Your task to perform on an android device: clear all cookies in the chrome app Image 0: 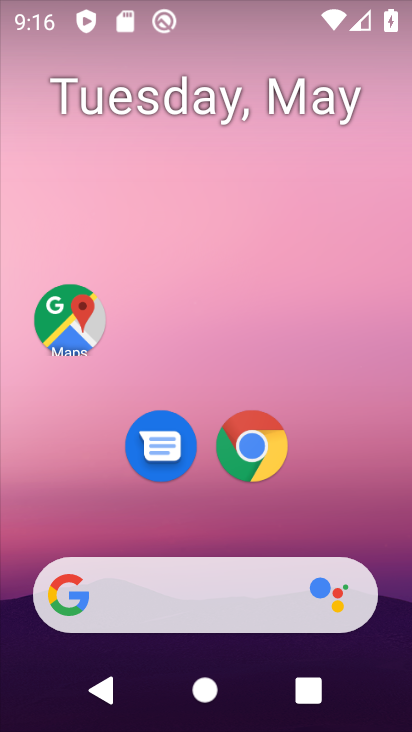
Step 0: click (254, 437)
Your task to perform on an android device: clear all cookies in the chrome app Image 1: 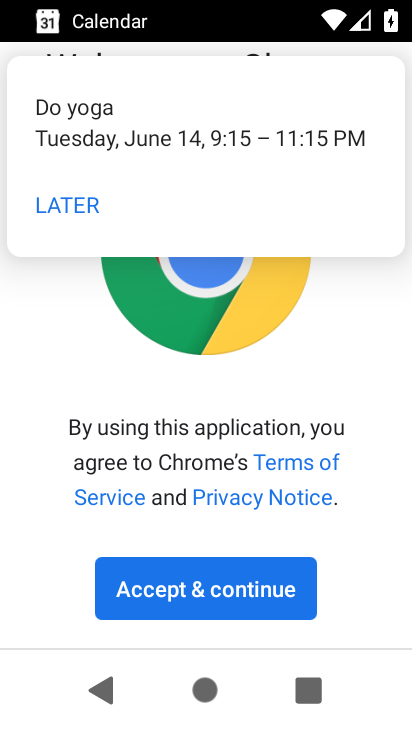
Step 1: click (214, 600)
Your task to perform on an android device: clear all cookies in the chrome app Image 2: 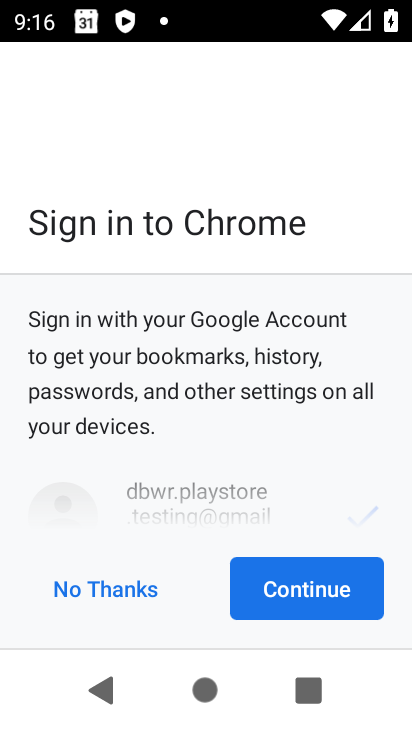
Step 2: click (279, 611)
Your task to perform on an android device: clear all cookies in the chrome app Image 3: 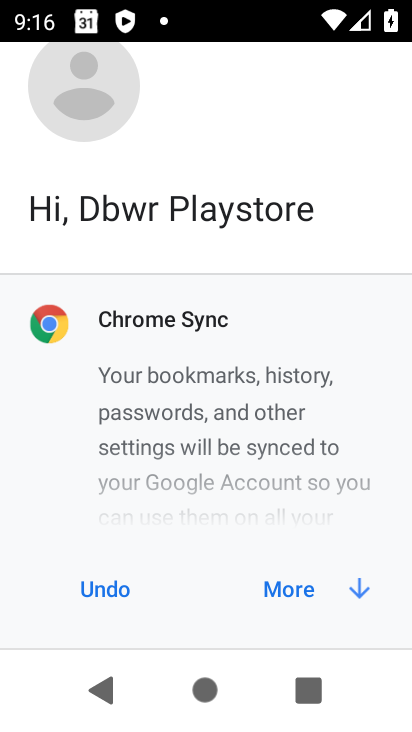
Step 3: click (287, 595)
Your task to perform on an android device: clear all cookies in the chrome app Image 4: 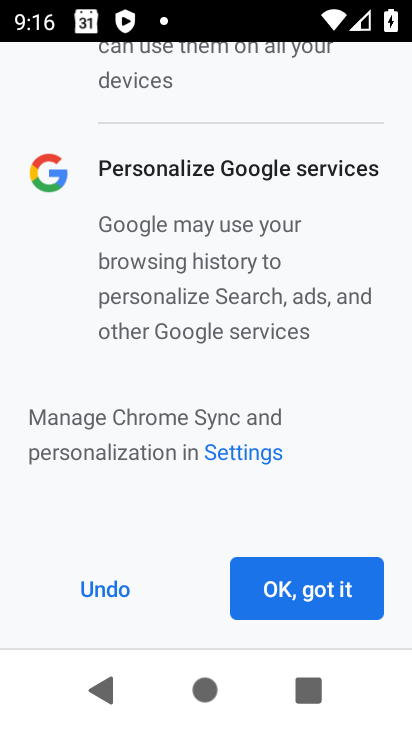
Step 4: click (297, 569)
Your task to perform on an android device: clear all cookies in the chrome app Image 5: 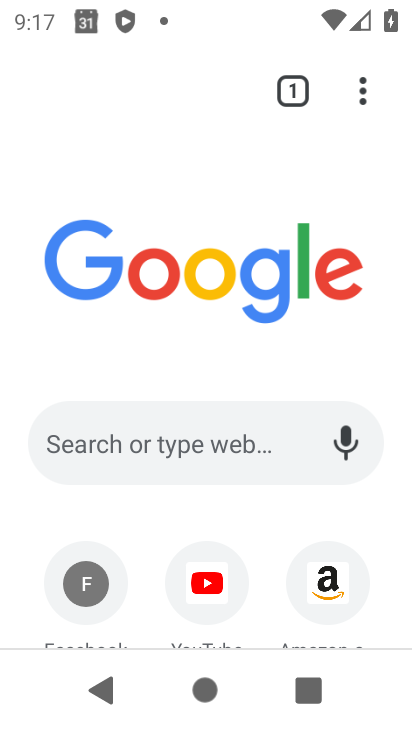
Step 5: click (363, 90)
Your task to perform on an android device: clear all cookies in the chrome app Image 6: 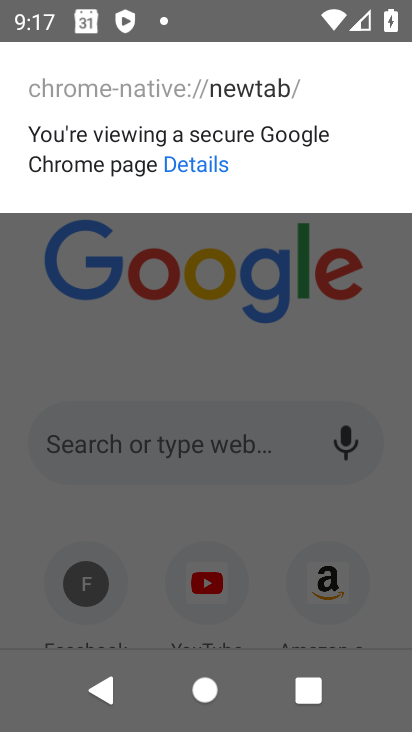
Step 6: click (295, 355)
Your task to perform on an android device: clear all cookies in the chrome app Image 7: 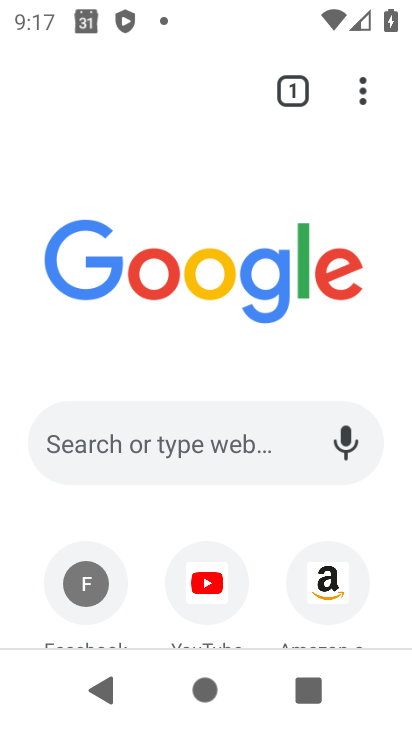
Step 7: click (361, 93)
Your task to perform on an android device: clear all cookies in the chrome app Image 8: 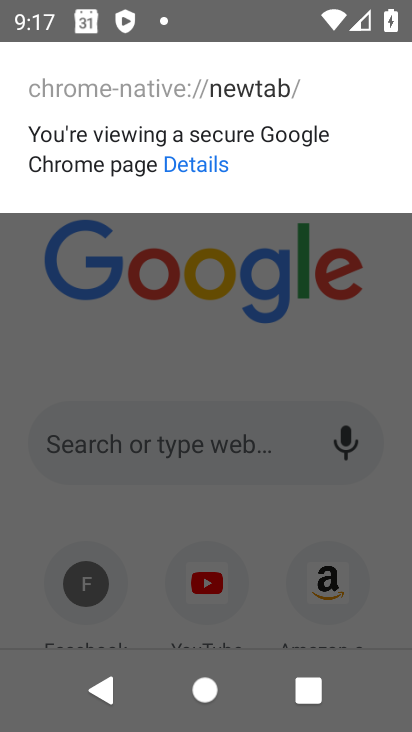
Step 8: click (150, 310)
Your task to perform on an android device: clear all cookies in the chrome app Image 9: 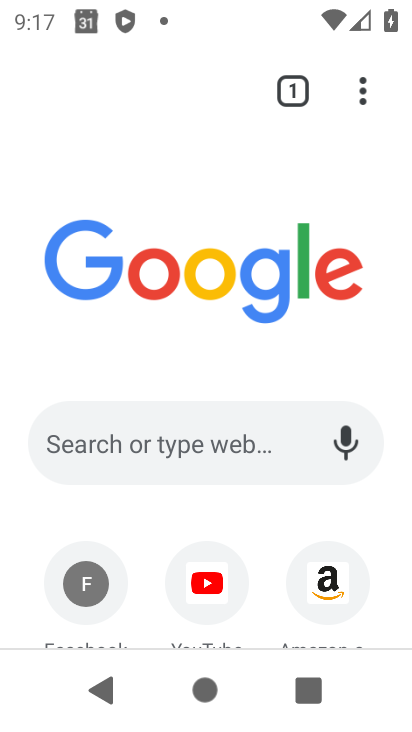
Step 9: click (362, 94)
Your task to perform on an android device: clear all cookies in the chrome app Image 10: 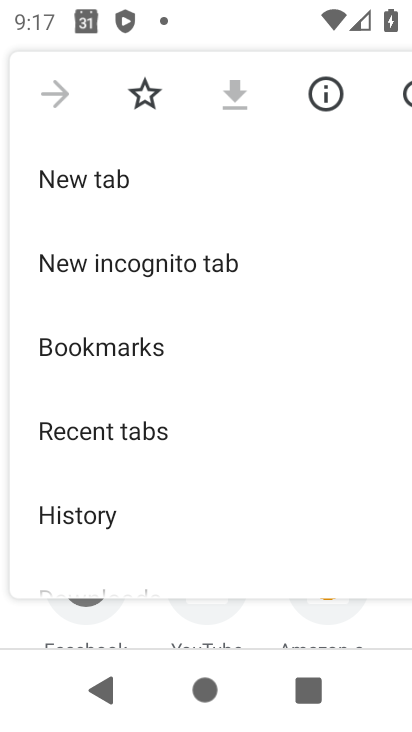
Step 10: drag from (79, 523) to (176, 104)
Your task to perform on an android device: clear all cookies in the chrome app Image 11: 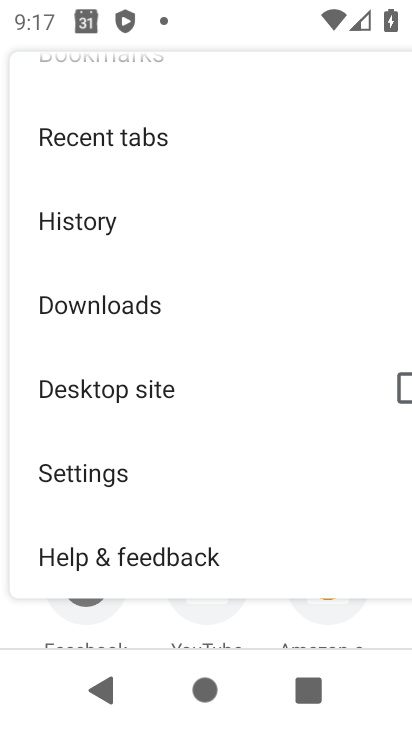
Step 11: click (79, 233)
Your task to perform on an android device: clear all cookies in the chrome app Image 12: 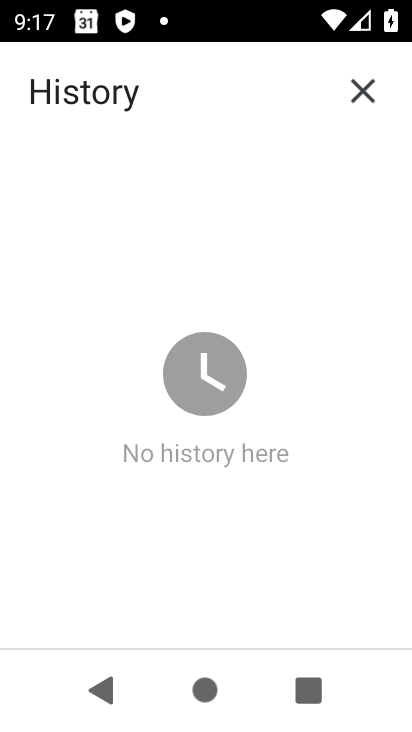
Step 12: task complete